Your task to perform on an android device: Add razer nari to the cart on amazon Image 0: 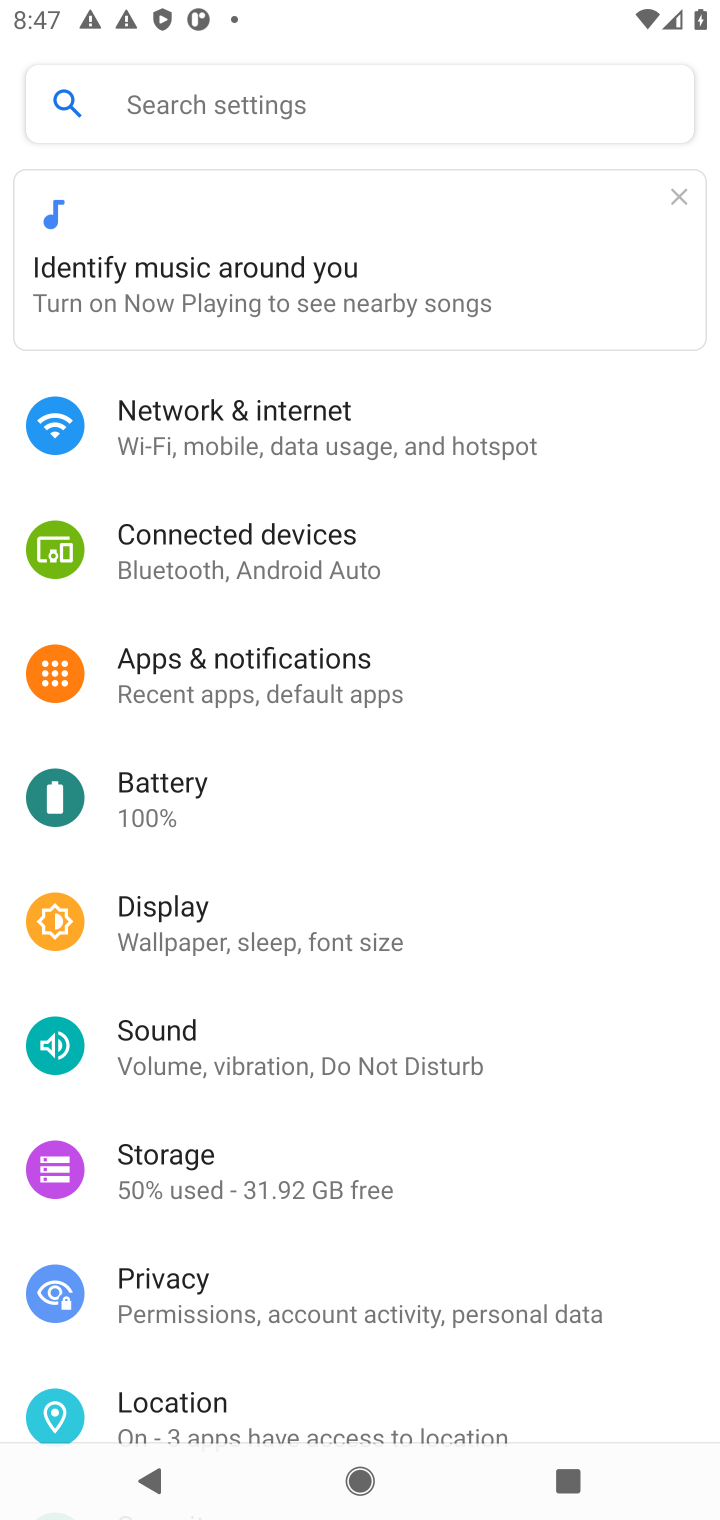
Step 0: press home button
Your task to perform on an android device: Add razer nari to the cart on amazon Image 1: 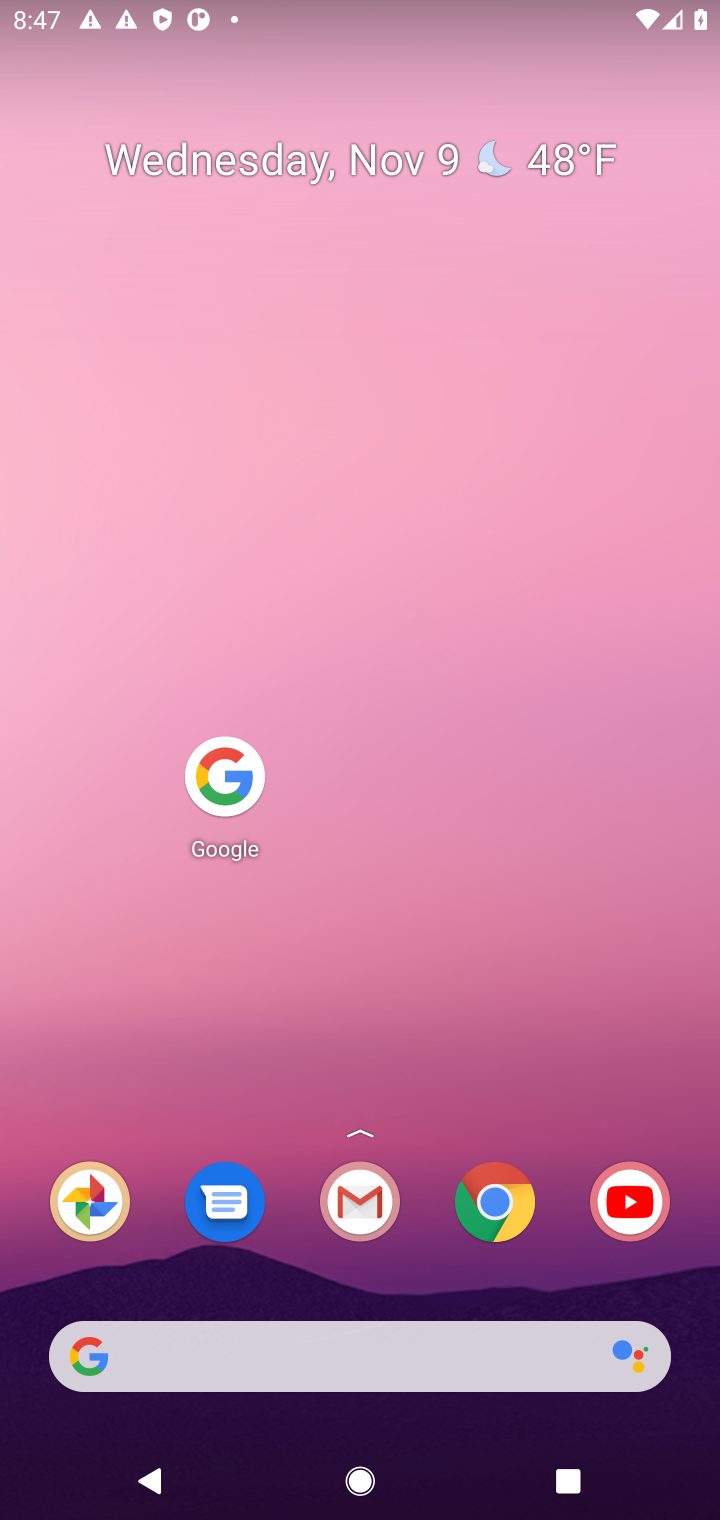
Step 1: click (209, 787)
Your task to perform on an android device: Add razer nari to the cart on amazon Image 2: 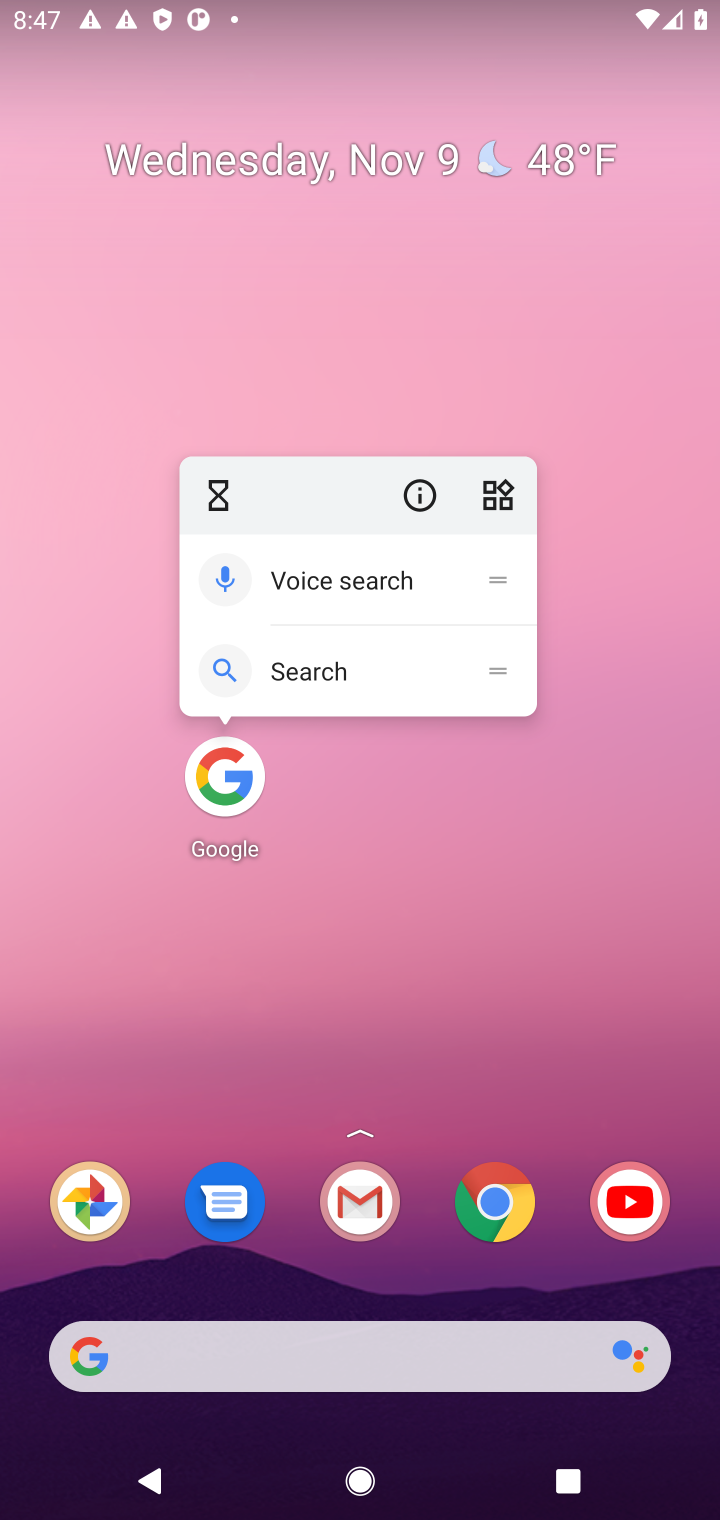
Step 2: click (217, 792)
Your task to perform on an android device: Add razer nari to the cart on amazon Image 3: 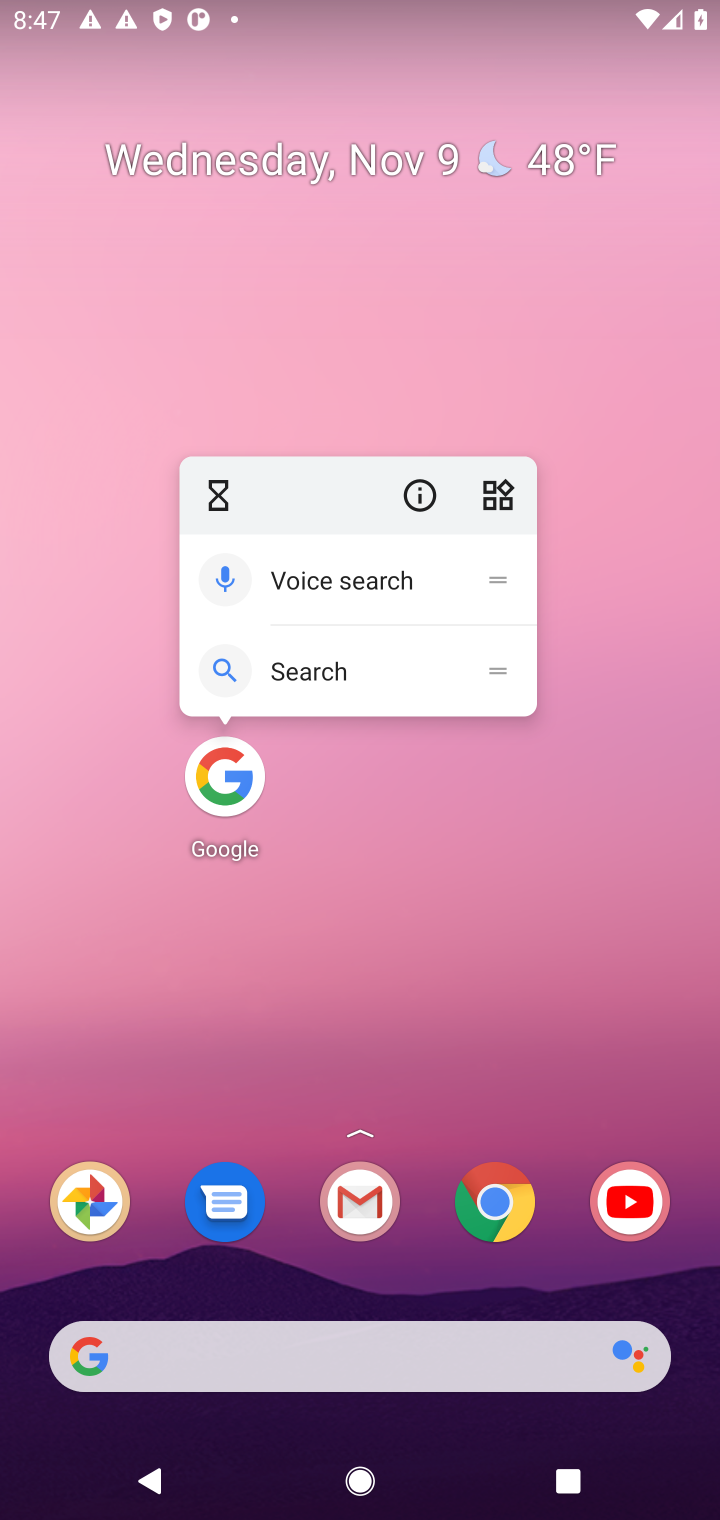
Step 3: click (231, 777)
Your task to perform on an android device: Add razer nari to the cart on amazon Image 4: 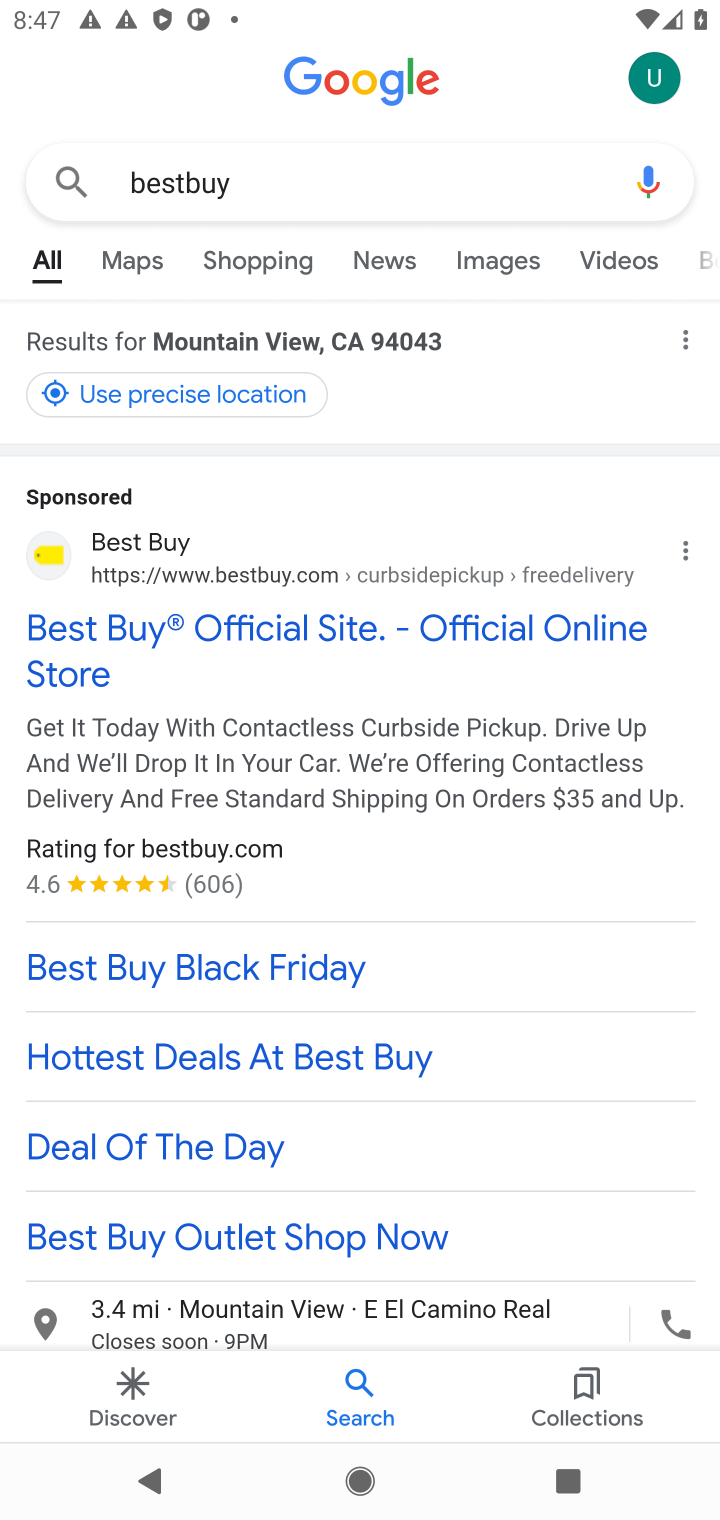
Step 4: click (315, 183)
Your task to perform on an android device: Add razer nari to the cart on amazon Image 5: 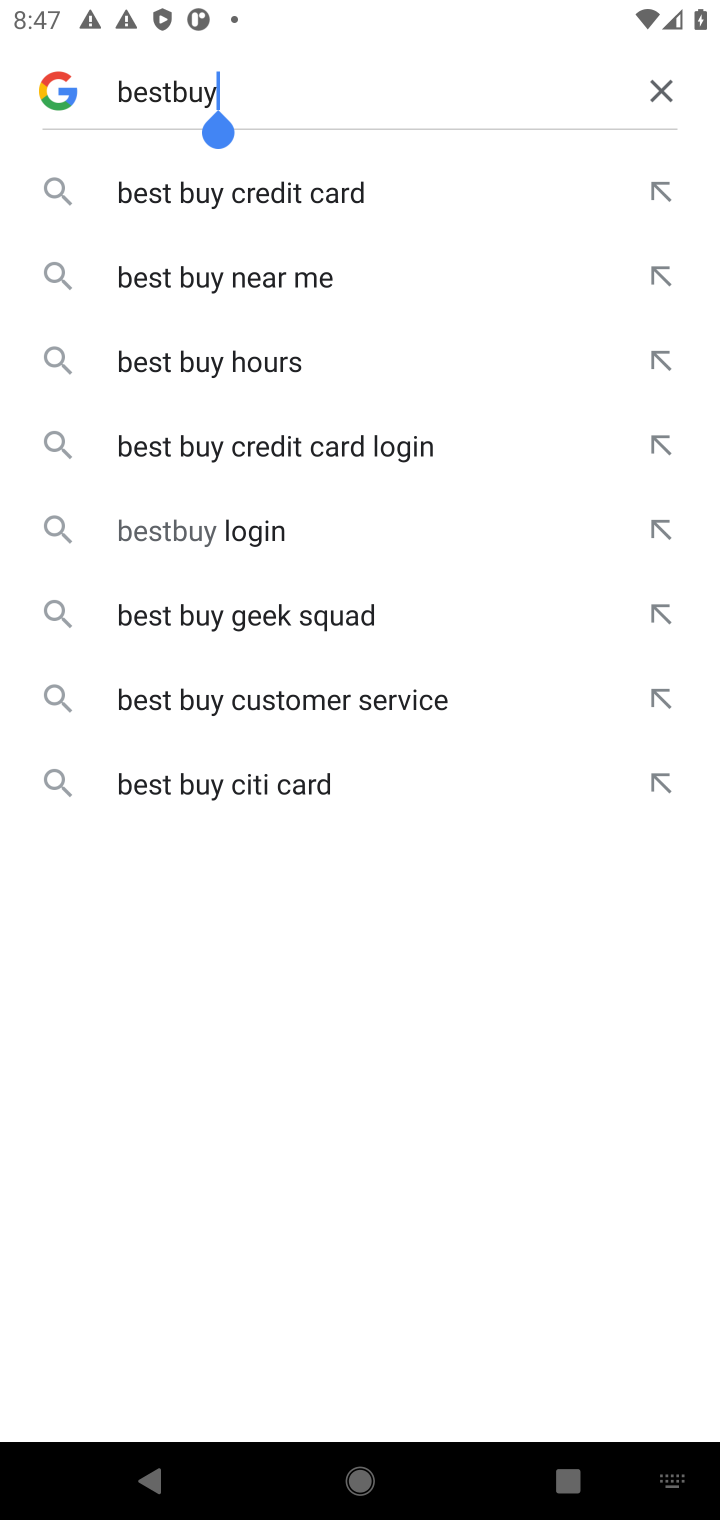
Step 5: click (653, 88)
Your task to perform on an android device: Add razer nari to the cart on amazon Image 6: 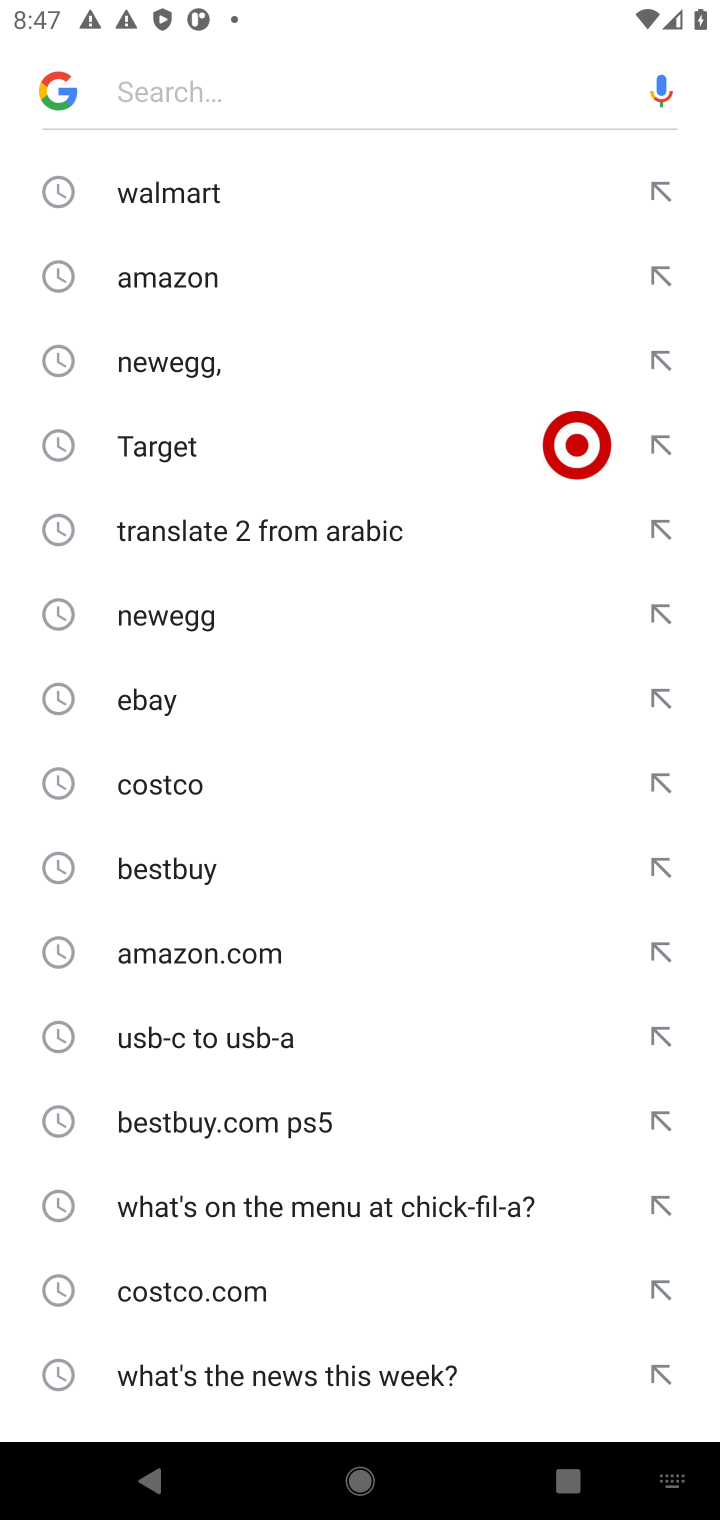
Step 6: click (135, 276)
Your task to perform on an android device: Add razer nari to the cart on amazon Image 7: 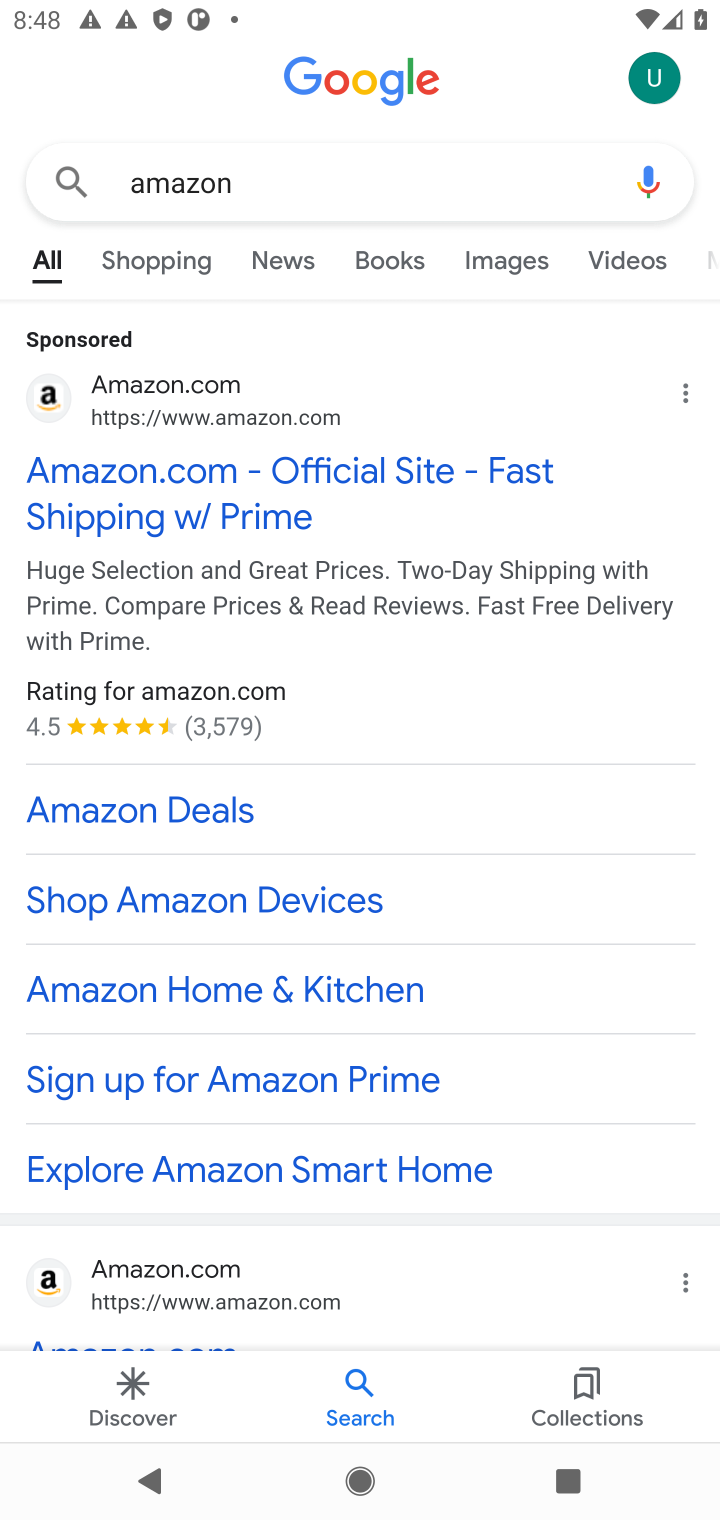
Step 7: click (190, 466)
Your task to perform on an android device: Add razer nari to the cart on amazon Image 8: 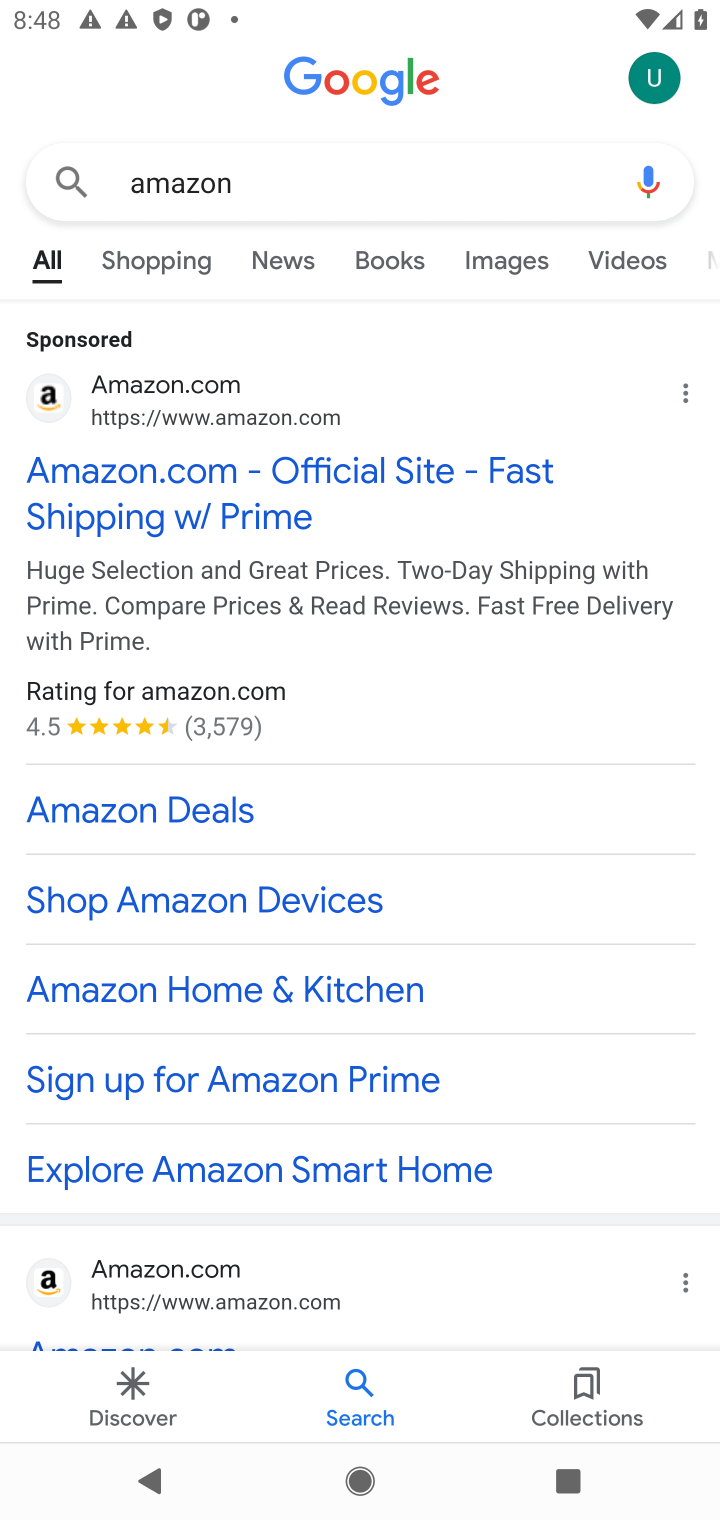
Step 8: click (190, 464)
Your task to perform on an android device: Add razer nari to the cart on amazon Image 9: 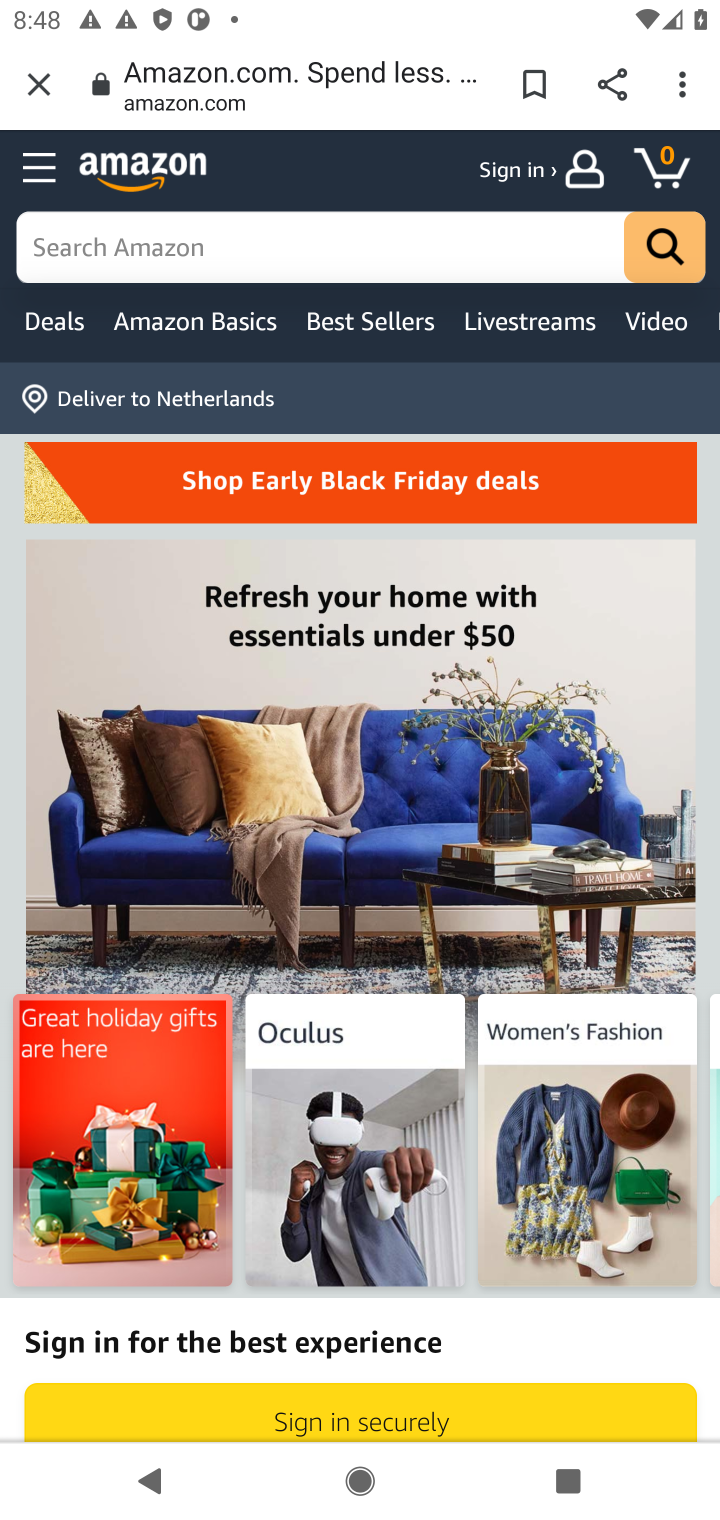
Step 9: click (178, 245)
Your task to perform on an android device: Add razer nari to the cart on amazon Image 10: 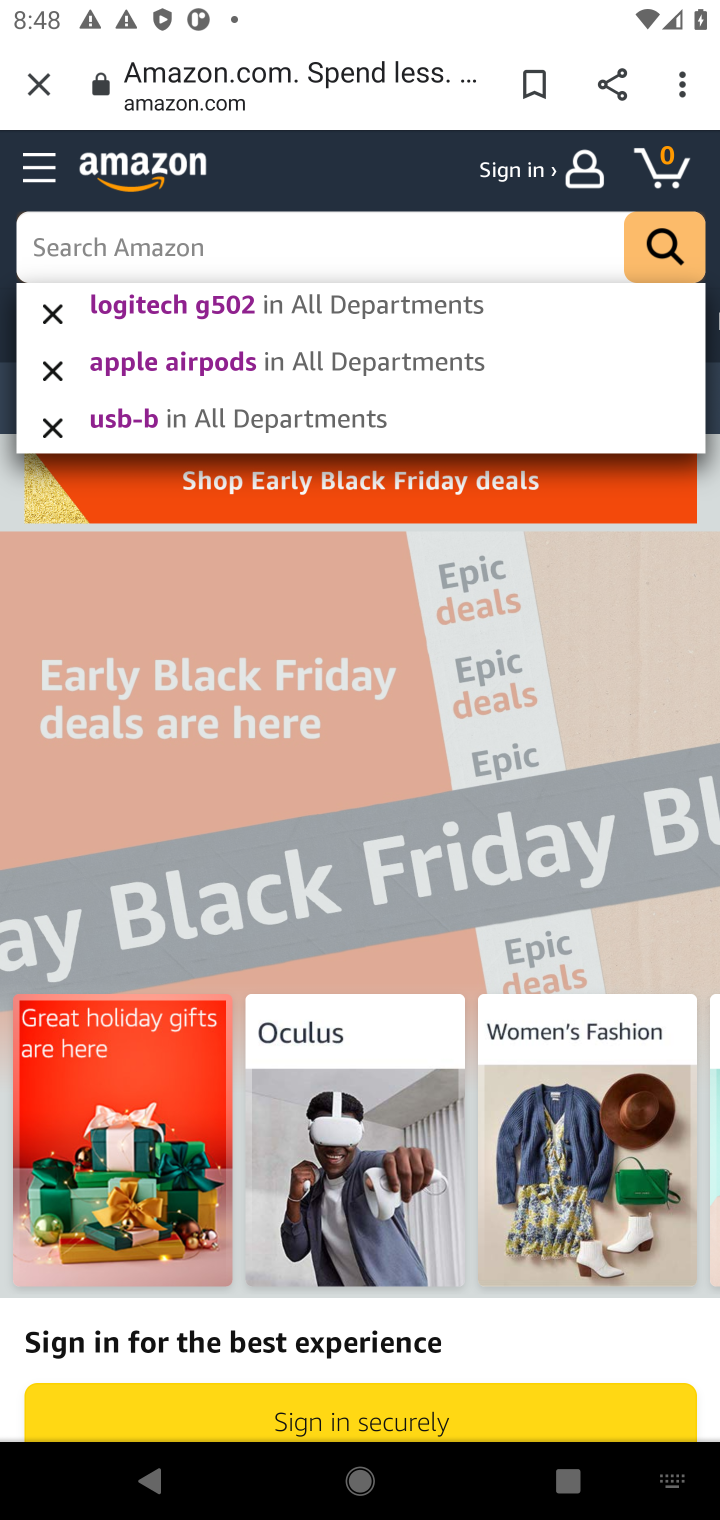
Step 10: press enter
Your task to perform on an android device: Add razer nari to the cart on amazon Image 11: 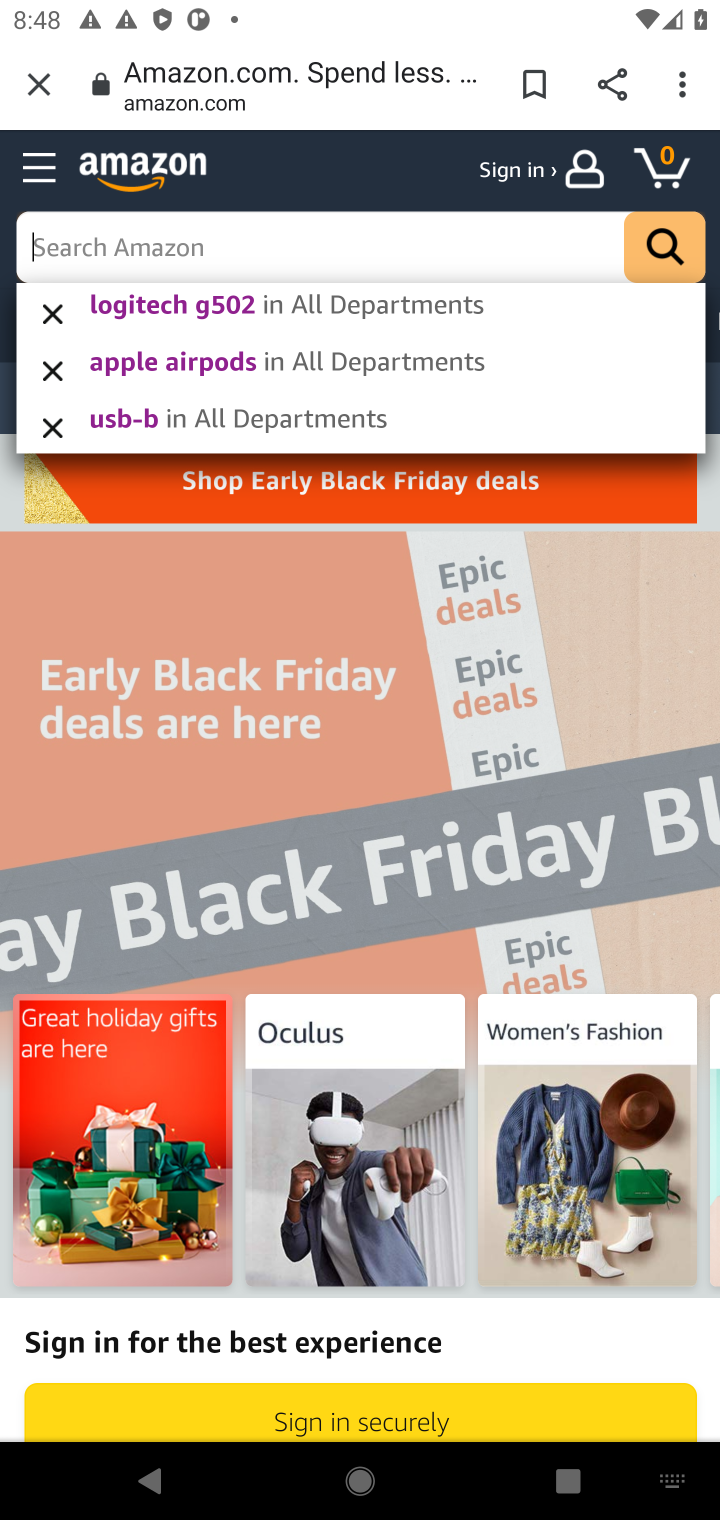
Step 11: type "razer nari "
Your task to perform on an android device: Add razer nari to the cart on amazon Image 12: 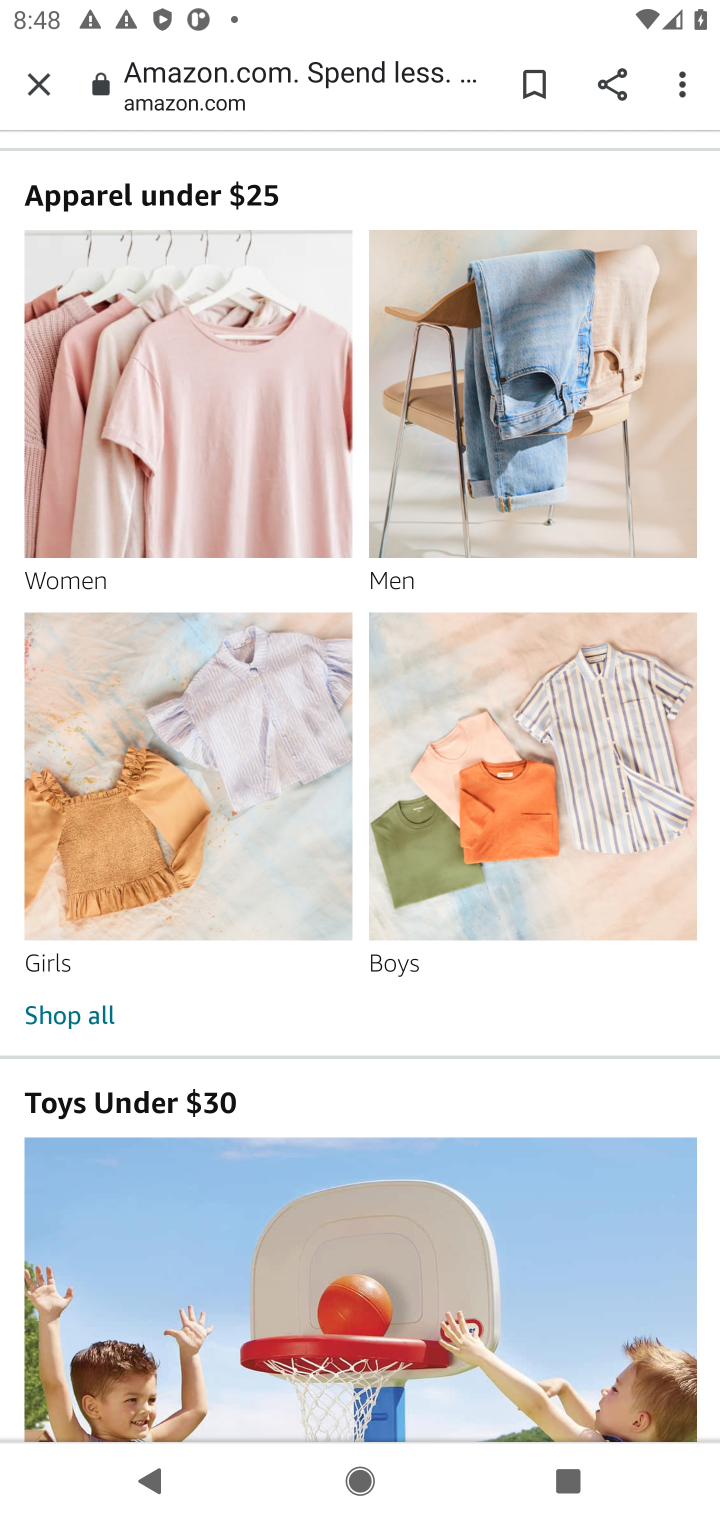
Step 12: drag from (491, 302) to (308, 1349)
Your task to perform on an android device: Add razer nari to the cart on amazon Image 13: 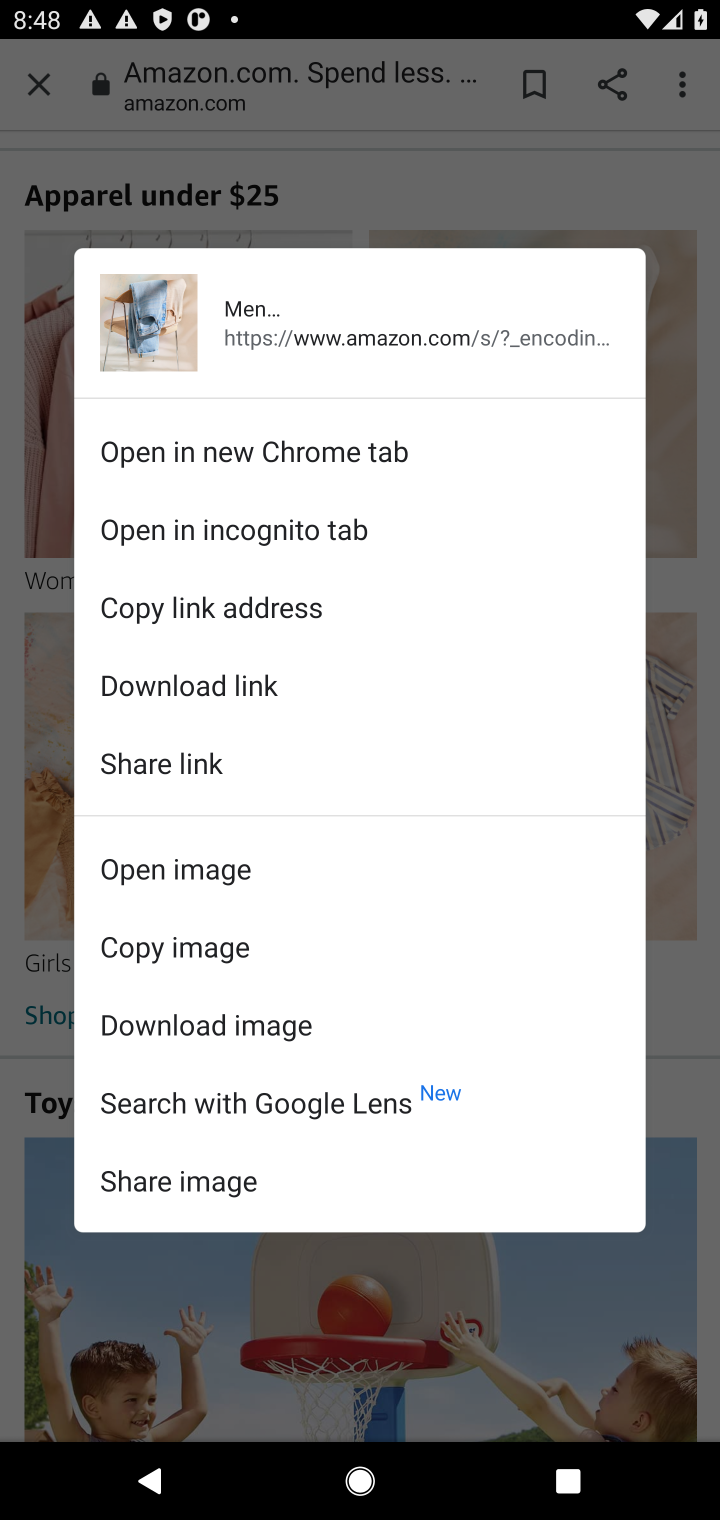
Step 13: click (688, 979)
Your task to perform on an android device: Add razer nari to the cart on amazon Image 14: 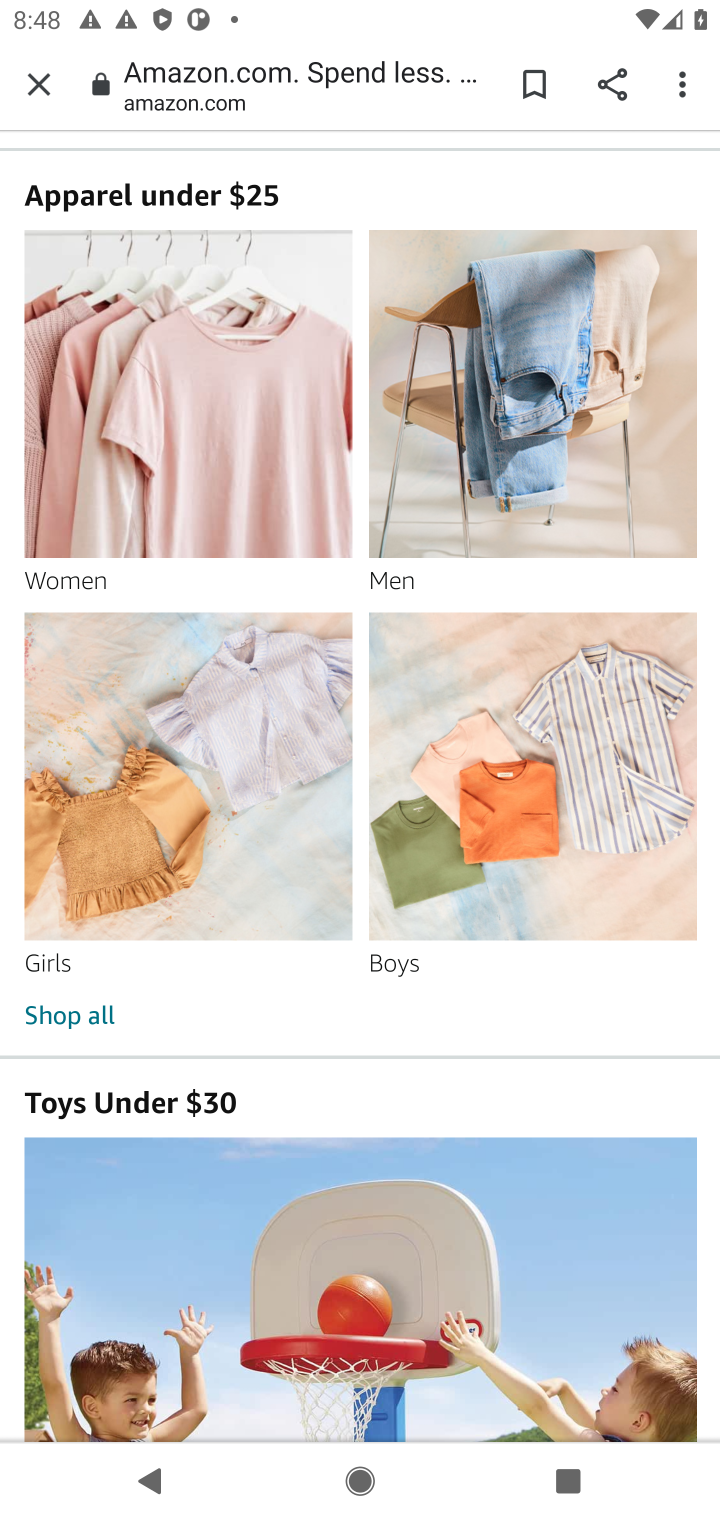
Step 14: drag from (414, 377) to (158, 1120)
Your task to perform on an android device: Add razer nari to the cart on amazon Image 15: 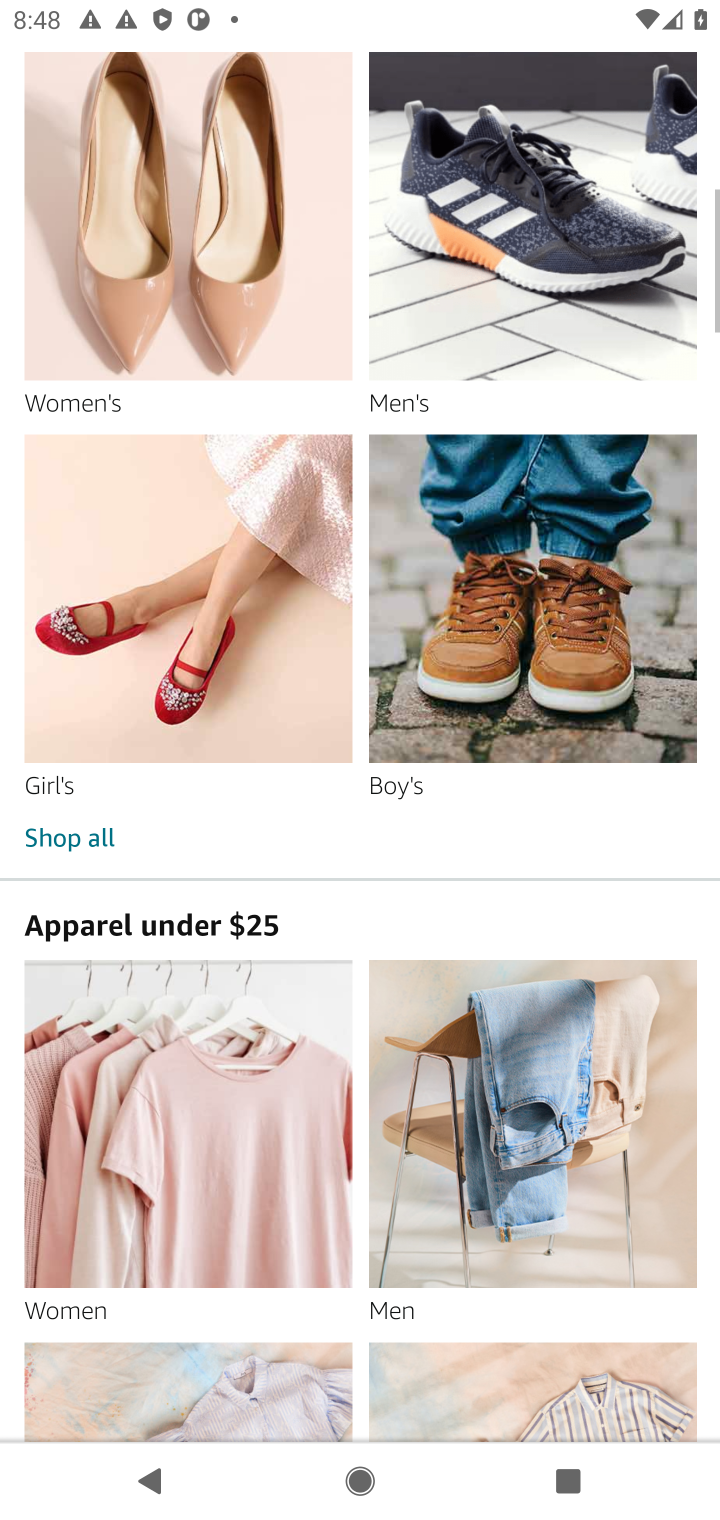
Step 15: drag from (358, 613) to (314, 1252)
Your task to perform on an android device: Add razer nari to the cart on amazon Image 16: 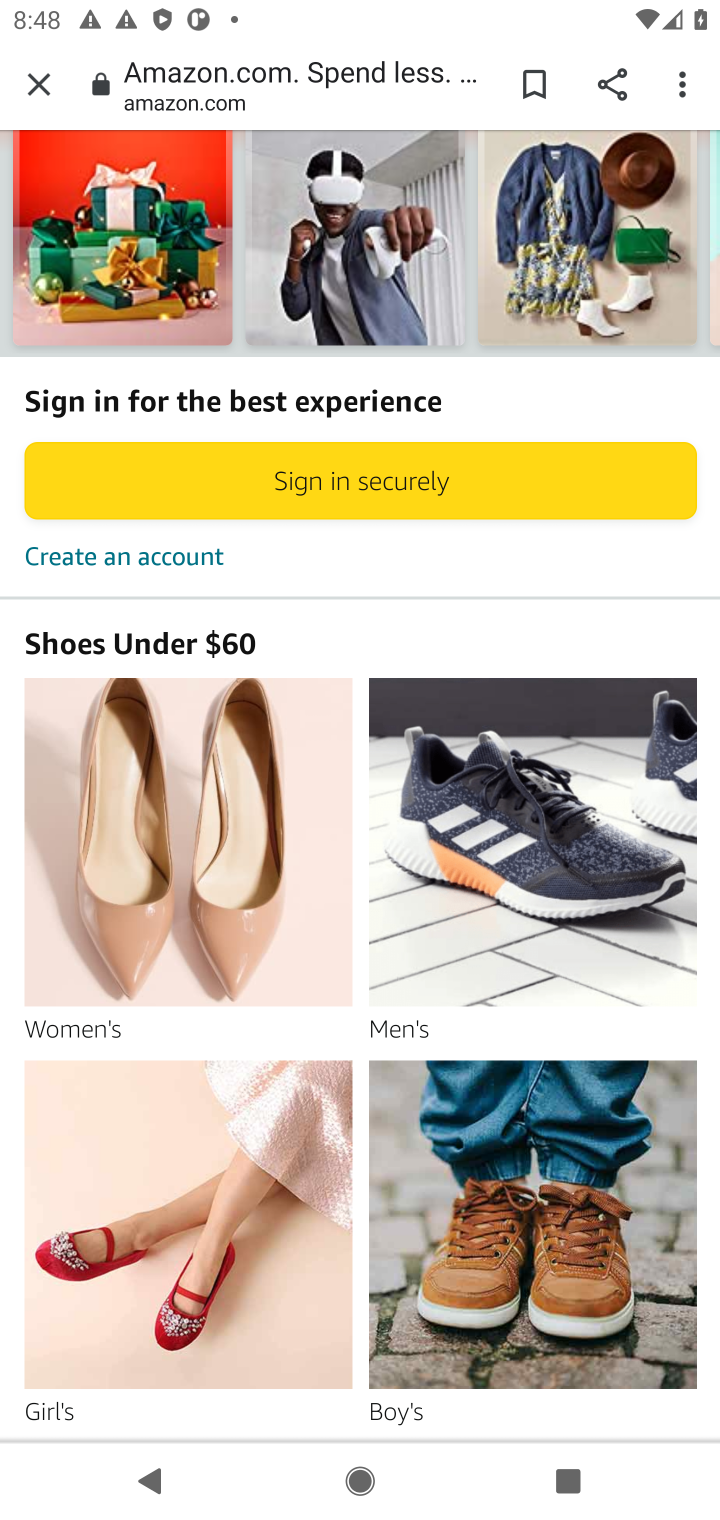
Step 16: drag from (447, 585) to (474, 1241)
Your task to perform on an android device: Add razer nari to the cart on amazon Image 17: 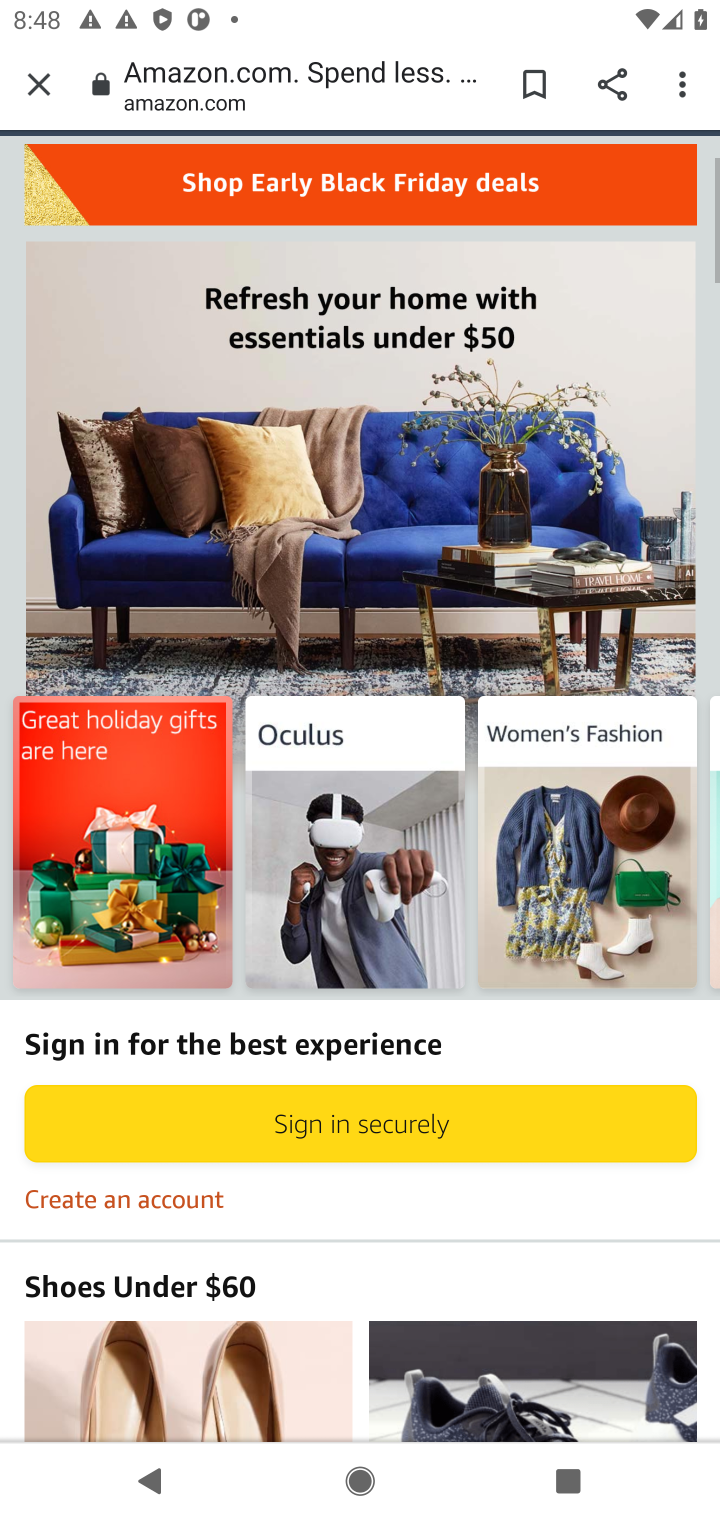
Step 17: drag from (440, 292) to (476, 1049)
Your task to perform on an android device: Add razer nari to the cart on amazon Image 18: 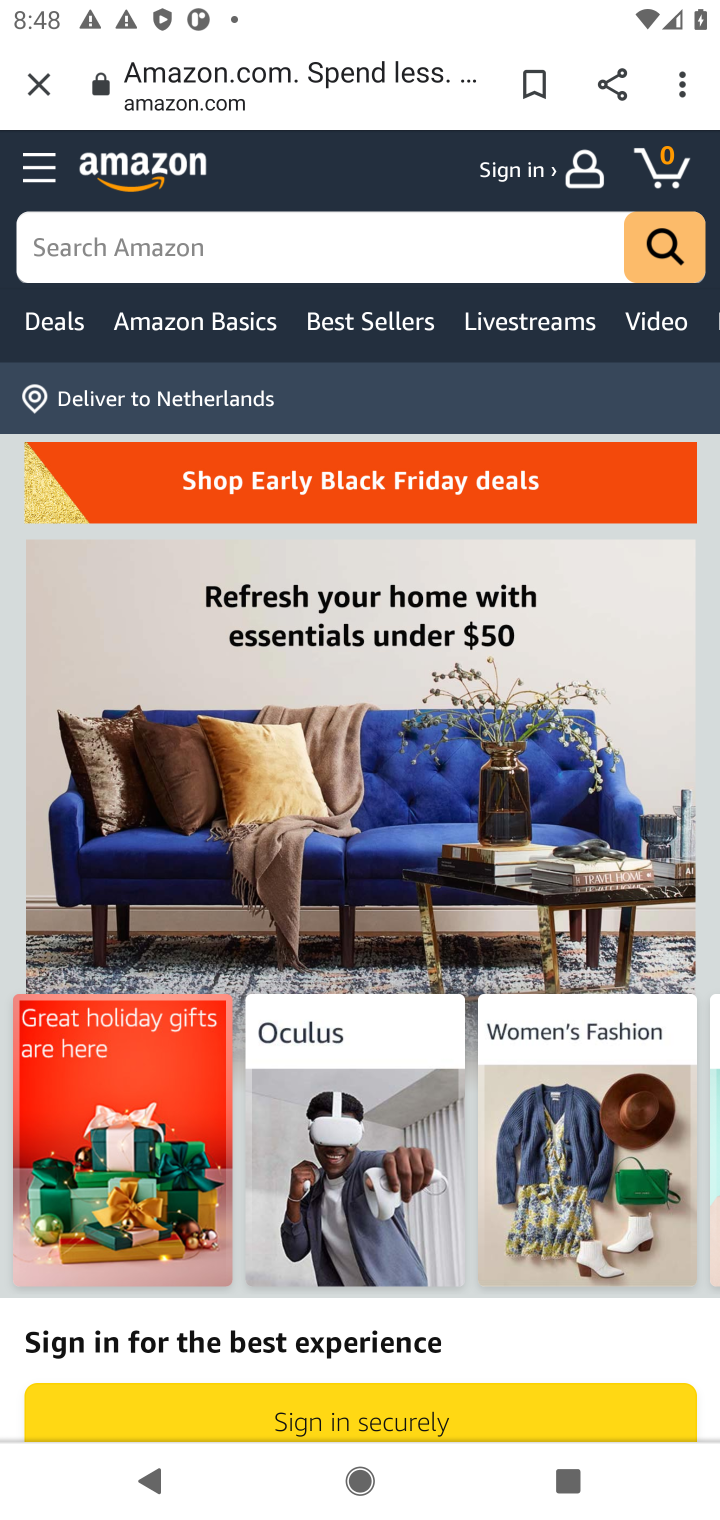
Step 18: click (162, 232)
Your task to perform on an android device: Add razer nari to the cart on amazon Image 19: 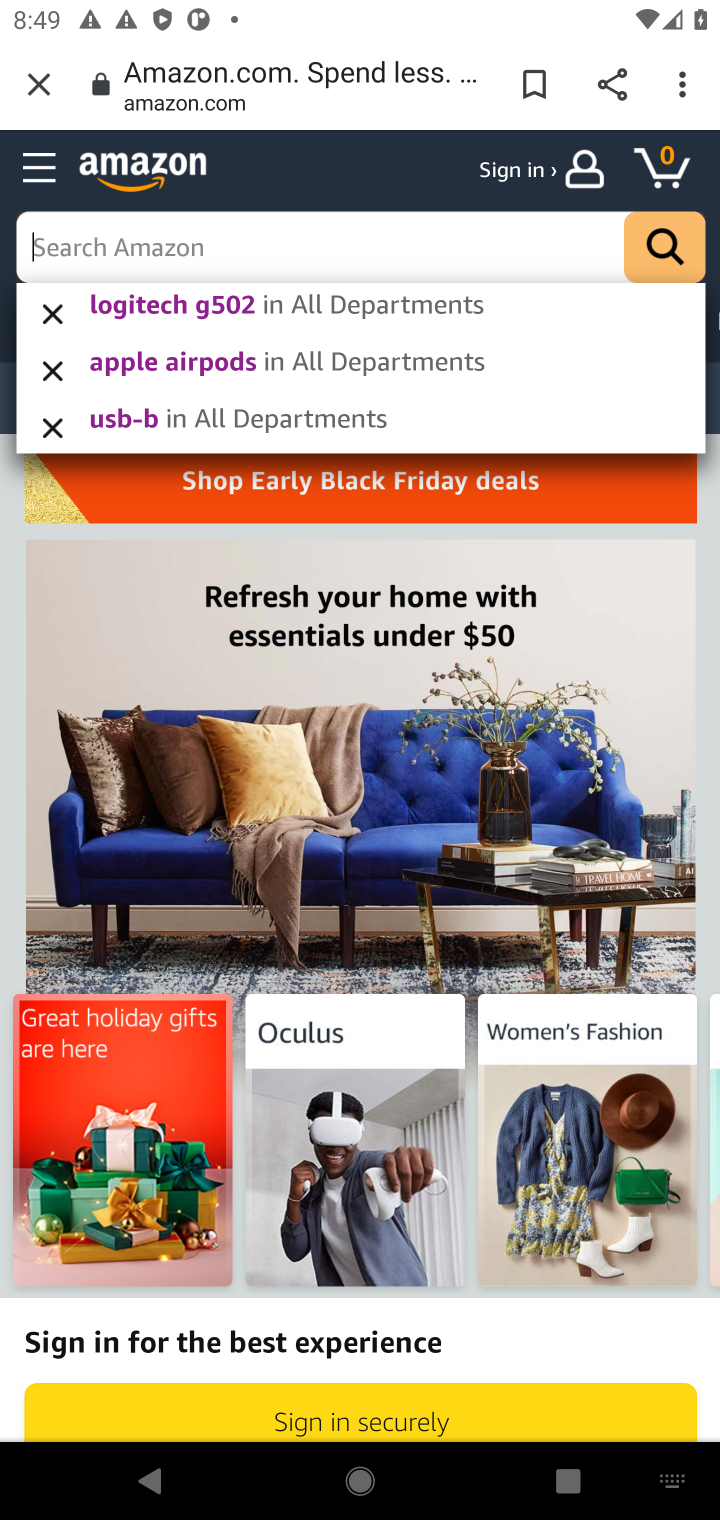
Step 19: click (127, 238)
Your task to perform on an android device: Add razer nari to the cart on amazon Image 20: 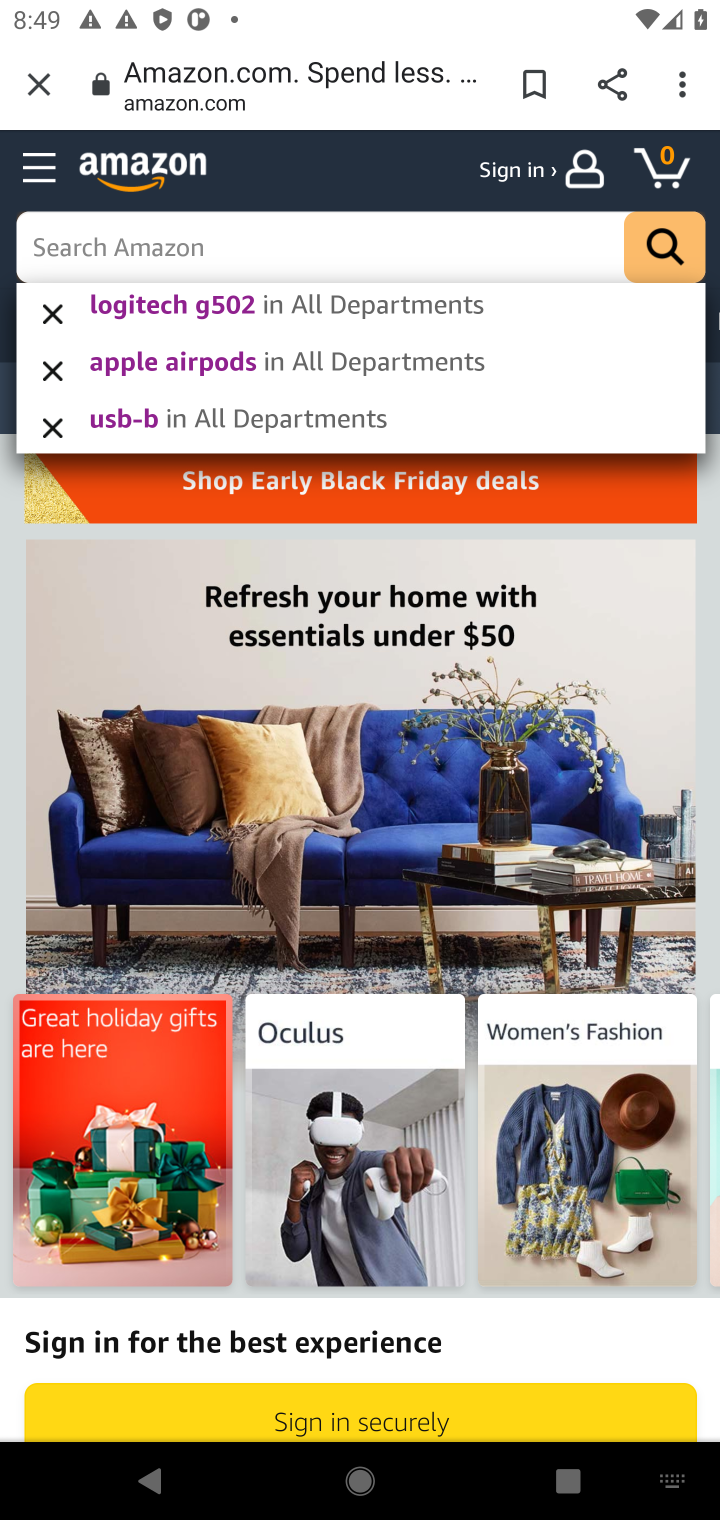
Step 20: type "razer nari "
Your task to perform on an android device: Add razer nari to the cart on amazon Image 21: 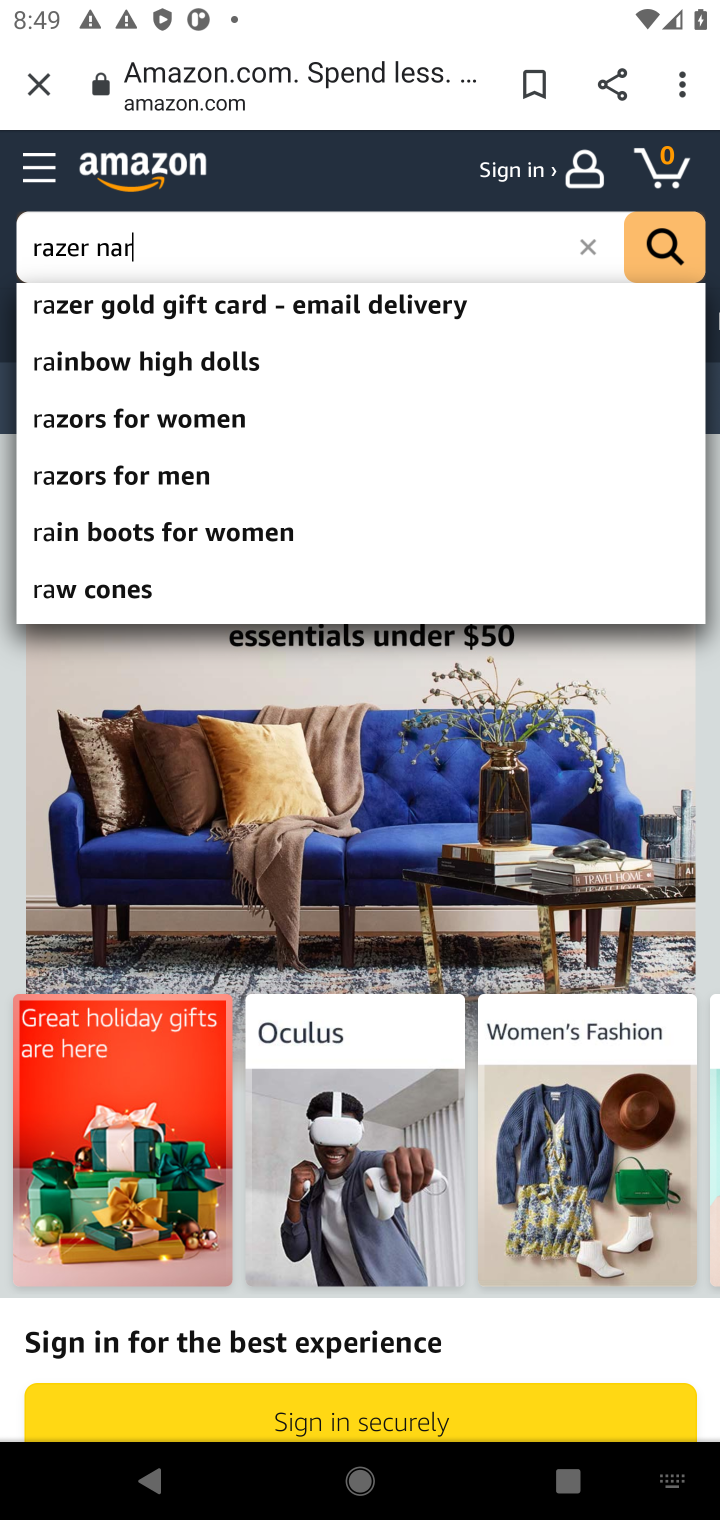
Step 21: press enter
Your task to perform on an android device: Add razer nari to the cart on amazon Image 22: 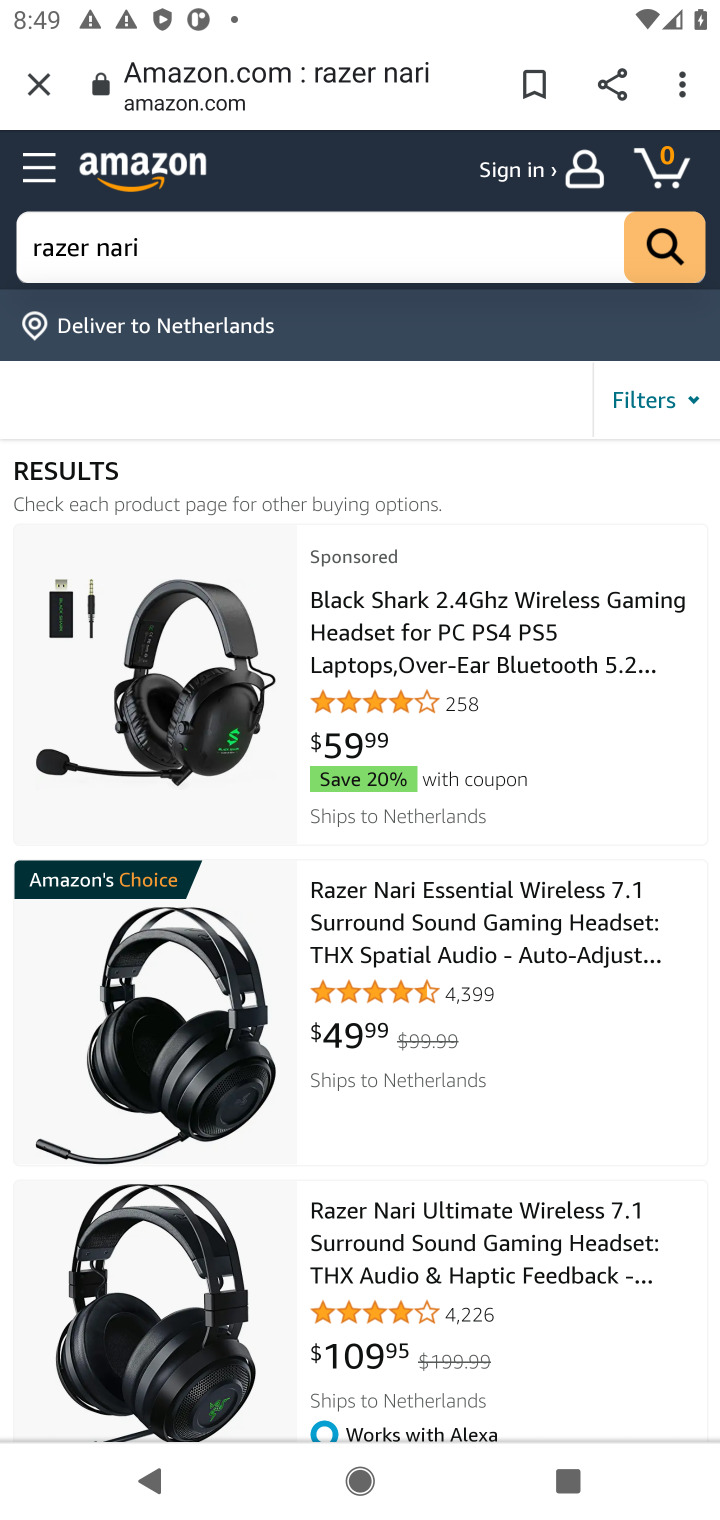
Step 22: click (444, 987)
Your task to perform on an android device: Add razer nari to the cart on amazon Image 23: 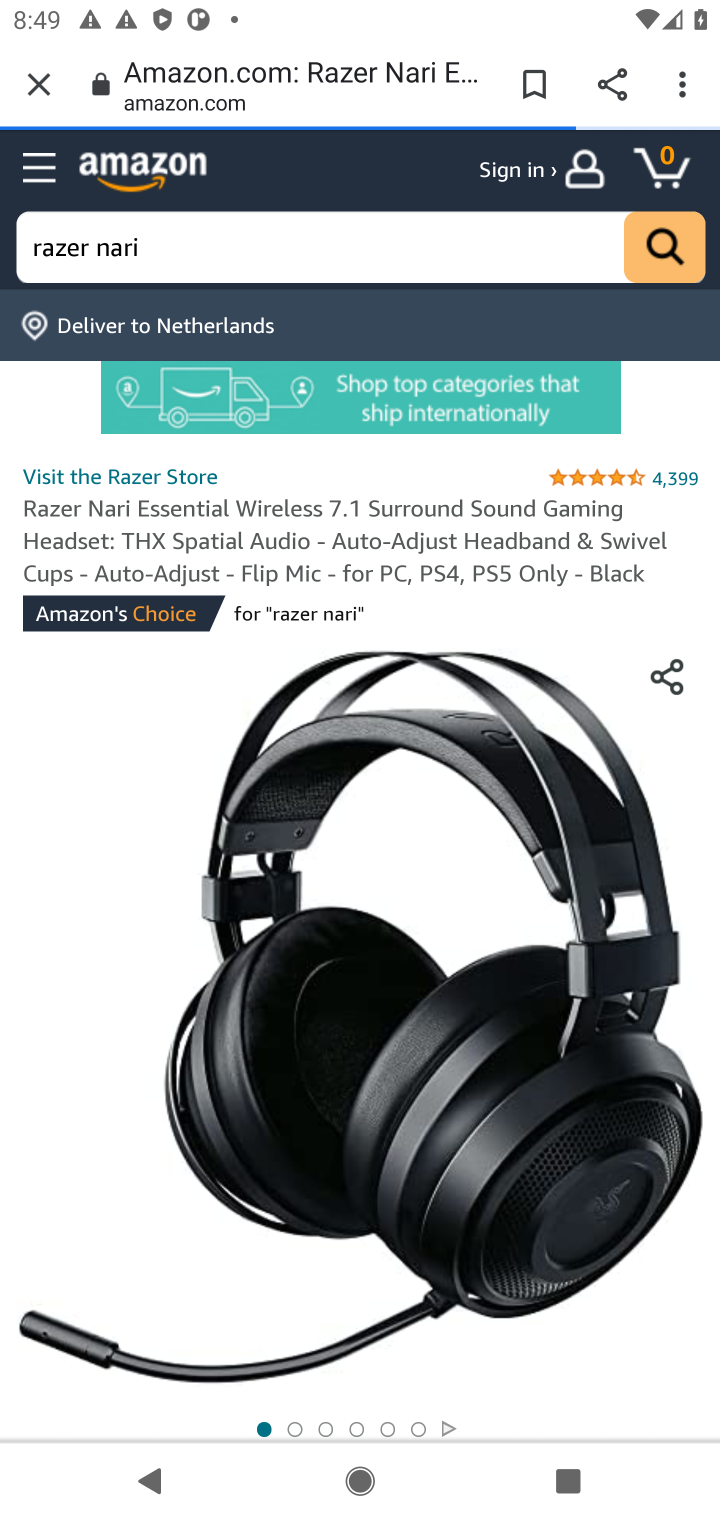
Step 23: drag from (228, 1309) to (505, 480)
Your task to perform on an android device: Add razer nari to the cart on amazon Image 24: 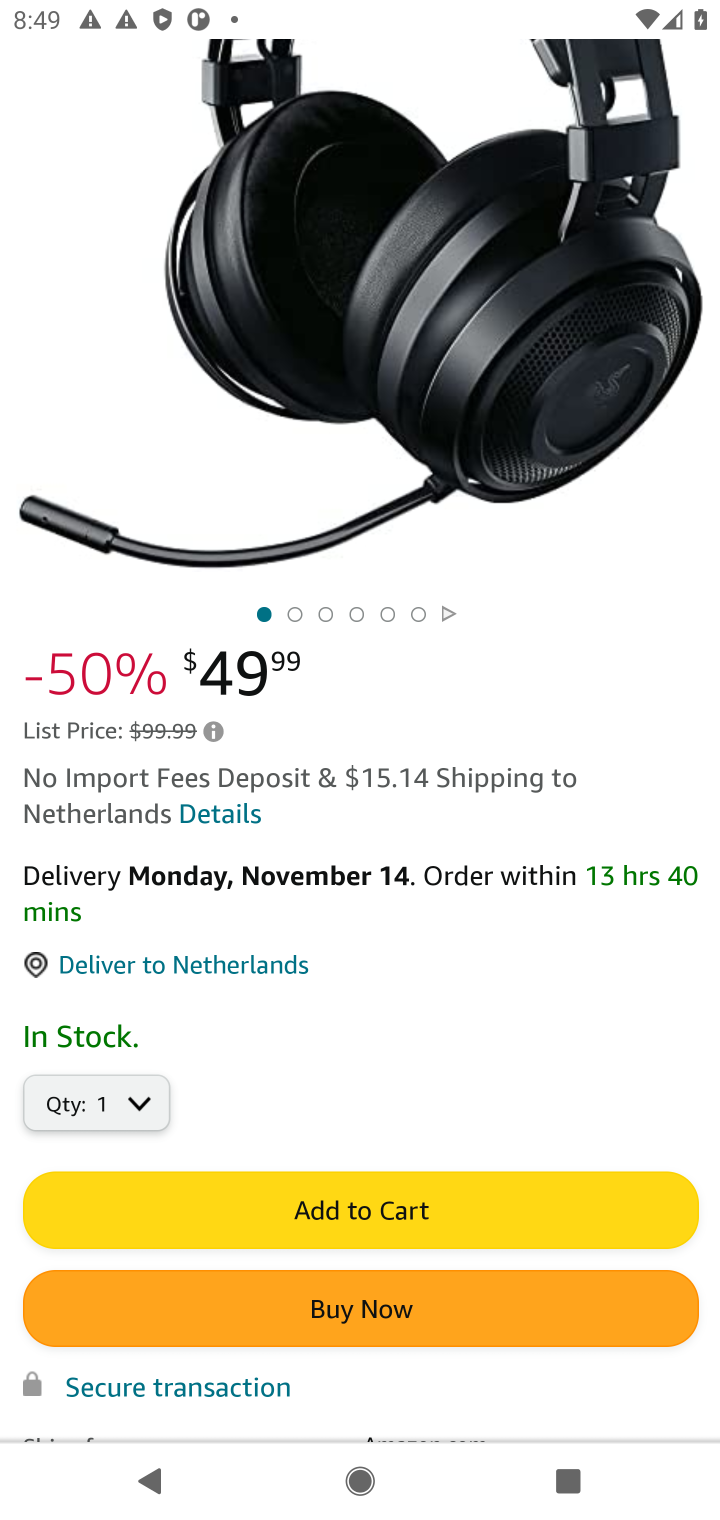
Step 24: click (358, 1203)
Your task to perform on an android device: Add razer nari to the cart on amazon Image 25: 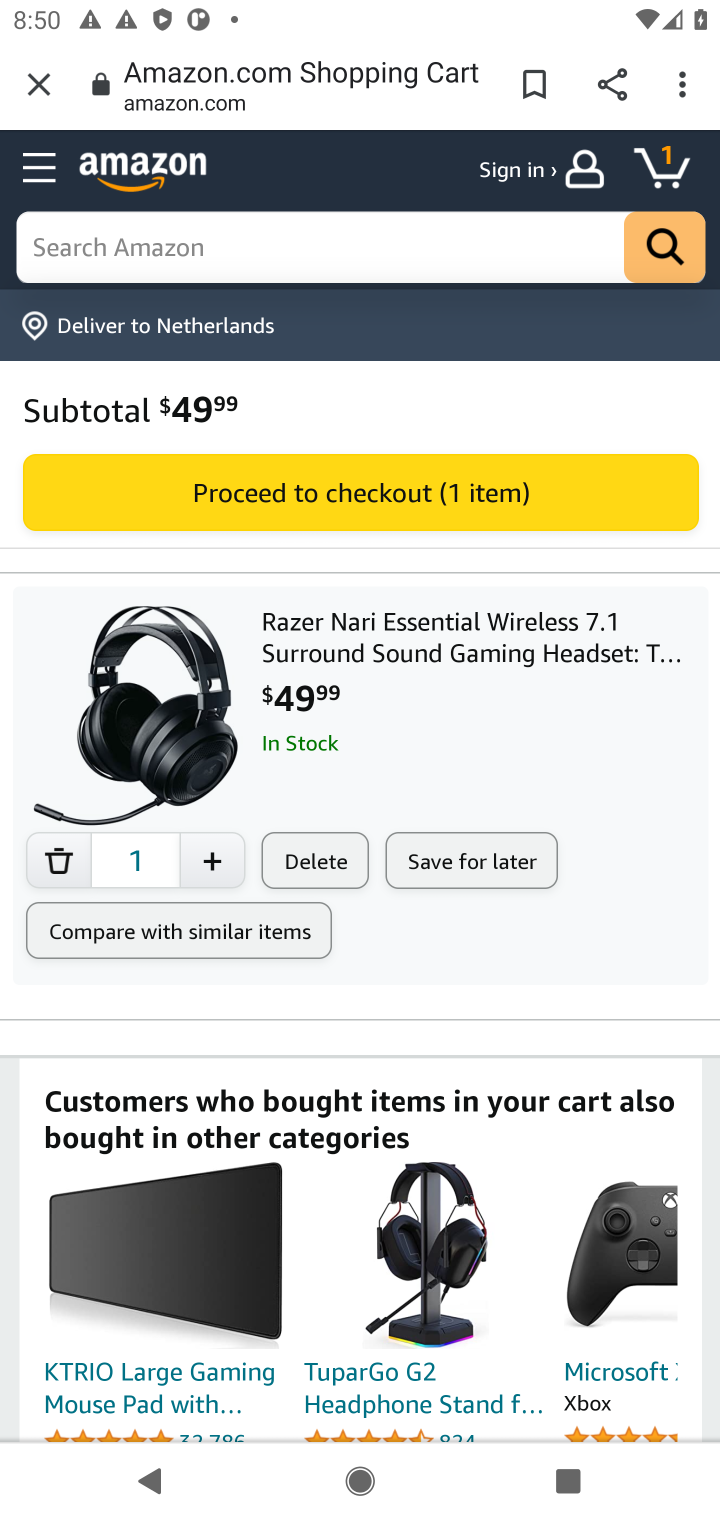
Step 25: task complete